Your task to perform on an android device: find snoozed emails in the gmail app Image 0: 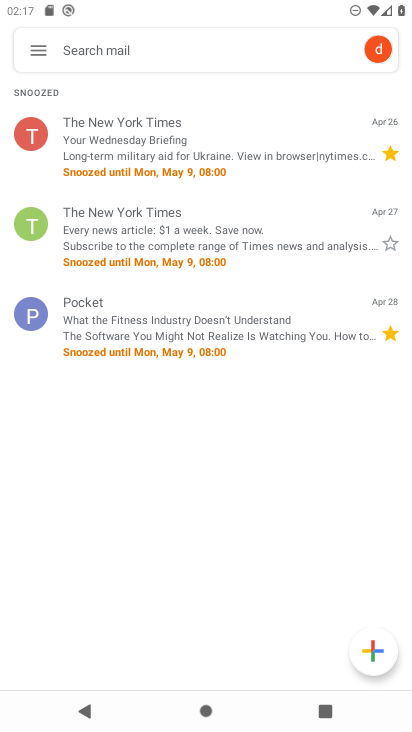
Step 0: press home button
Your task to perform on an android device: find snoozed emails in the gmail app Image 1: 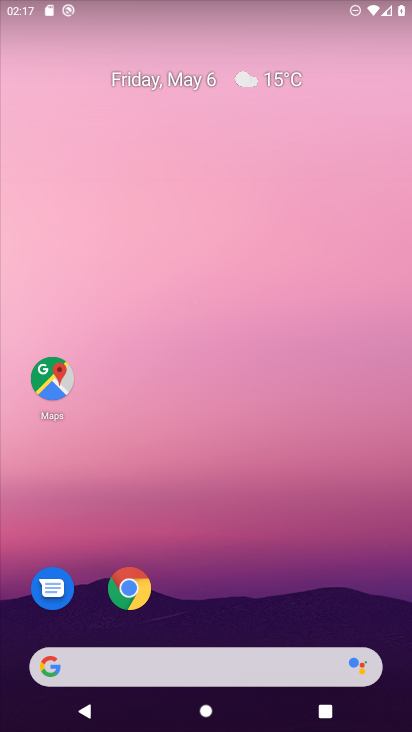
Step 1: drag from (219, 632) to (306, 11)
Your task to perform on an android device: find snoozed emails in the gmail app Image 2: 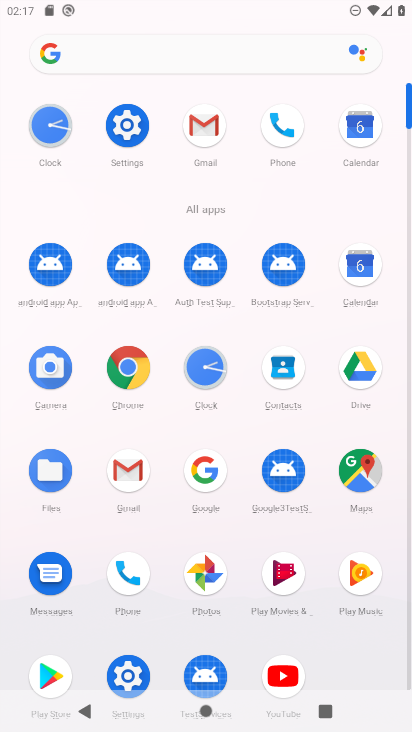
Step 2: click (129, 460)
Your task to perform on an android device: find snoozed emails in the gmail app Image 3: 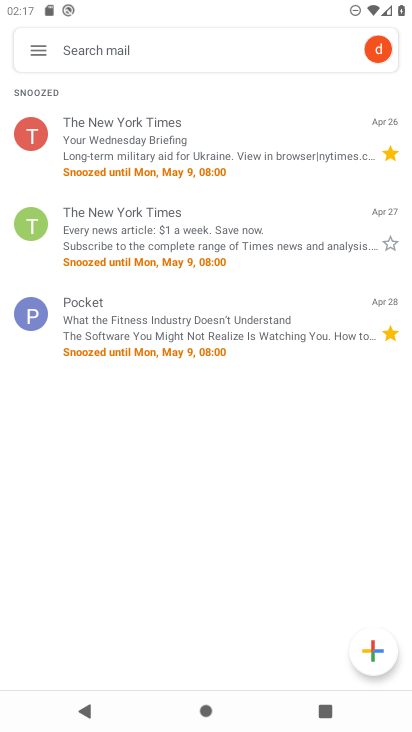
Step 3: task complete